Your task to perform on an android device: show emergency info Image 0: 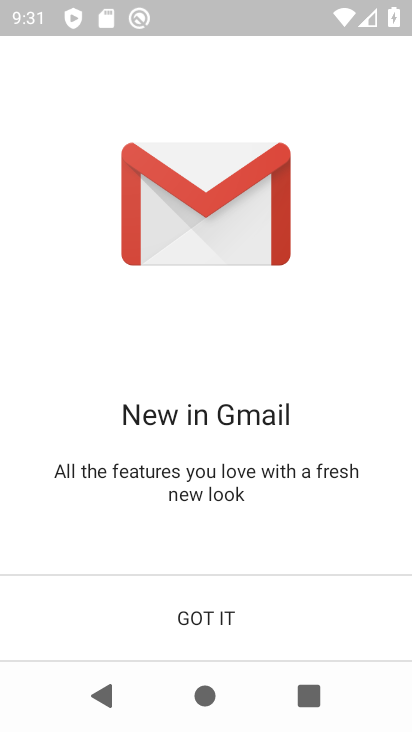
Step 0: press home button
Your task to perform on an android device: show emergency info Image 1: 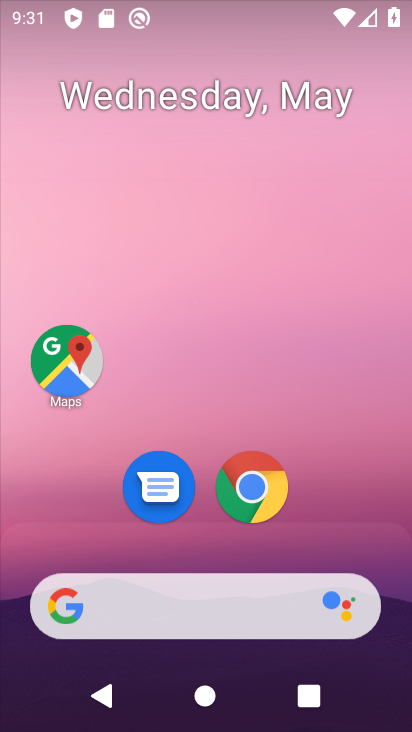
Step 1: drag from (201, 650) to (271, 2)
Your task to perform on an android device: show emergency info Image 2: 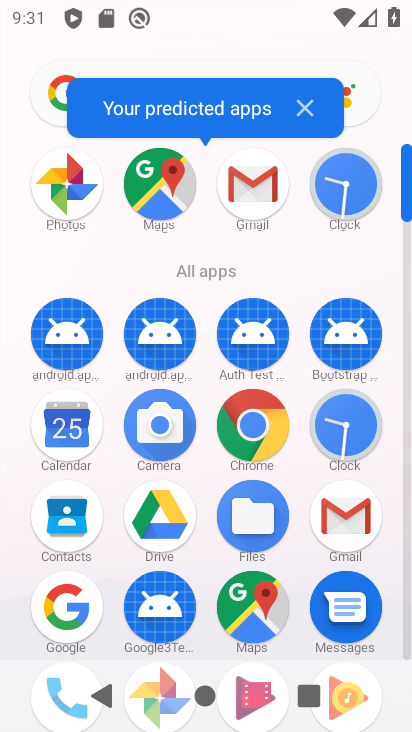
Step 2: drag from (197, 467) to (212, 206)
Your task to perform on an android device: show emergency info Image 3: 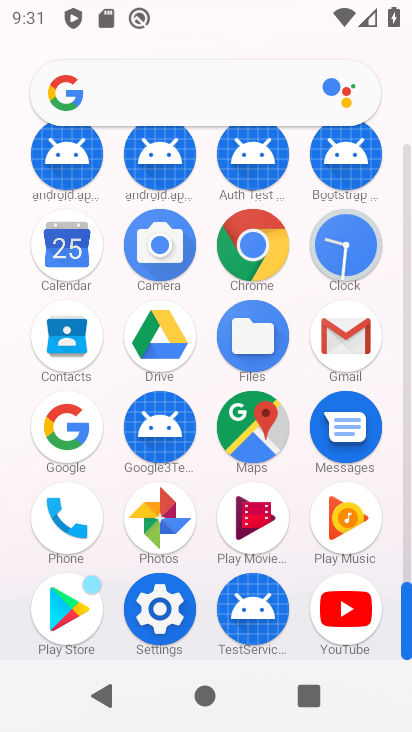
Step 3: click (168, 595)
Your task to perform on an android device: show emergency info Image 4: 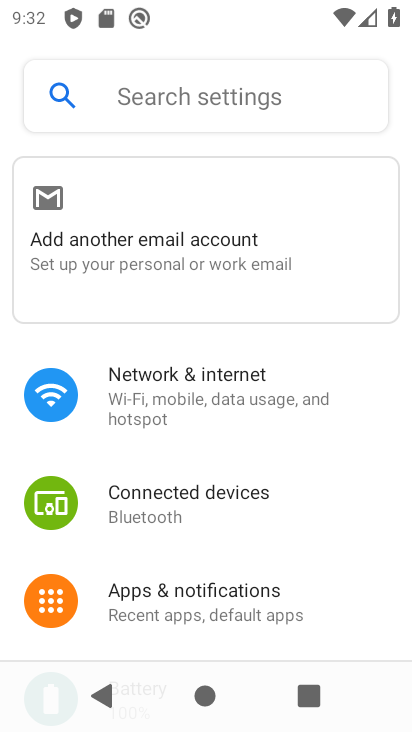
Step 4: click (153, 74)
Your task to perform on an android device: show emergency info Image 5: 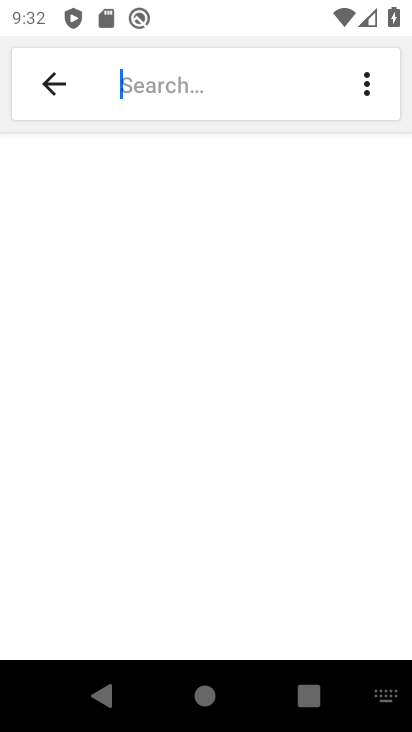
Step 5: click (391, 703)
Your task to perform on an android device: show emergency info Image 6: 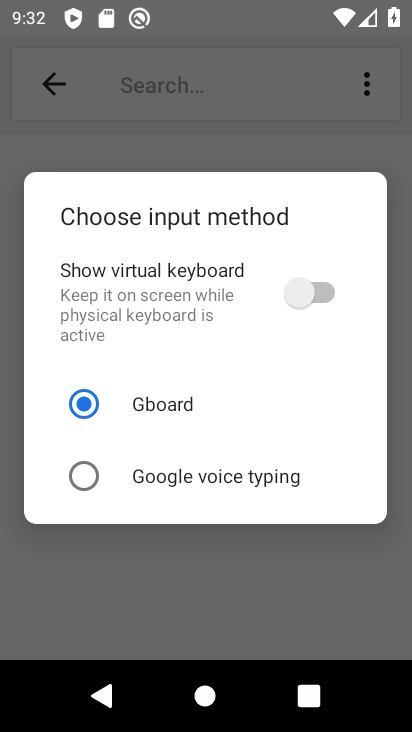
Step 6: click (302, 302)
Your task to perform on an android device: show emergency info Image 7: 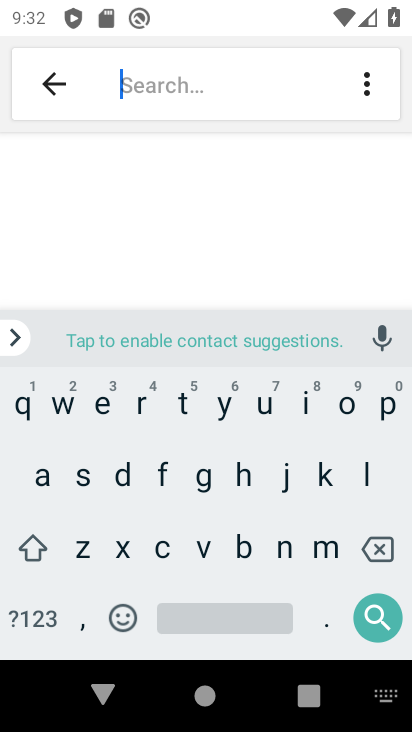
Step 7: click (97, 402)
Your task to perform on an android device: show emergency info Image 8: 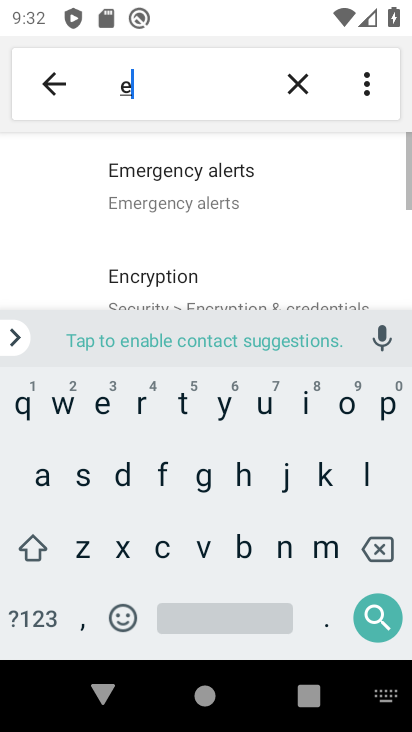
Step 8: click (320, 547)
Your task to perform on an android device: show emergency info Image 9: 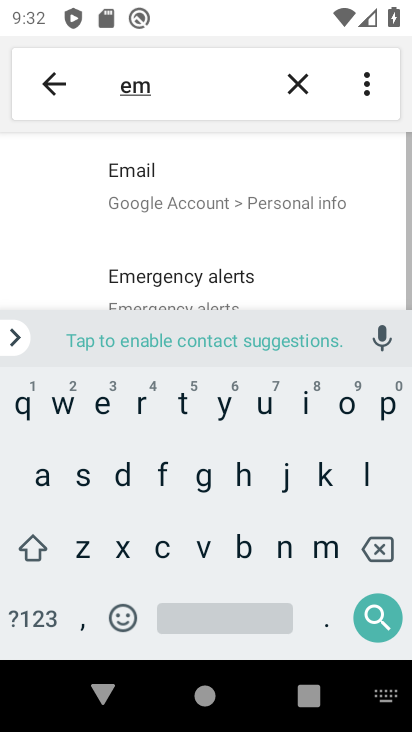
Step 9: click (108, 404)
Your task to perform on an android device: show emergency info Image 10: 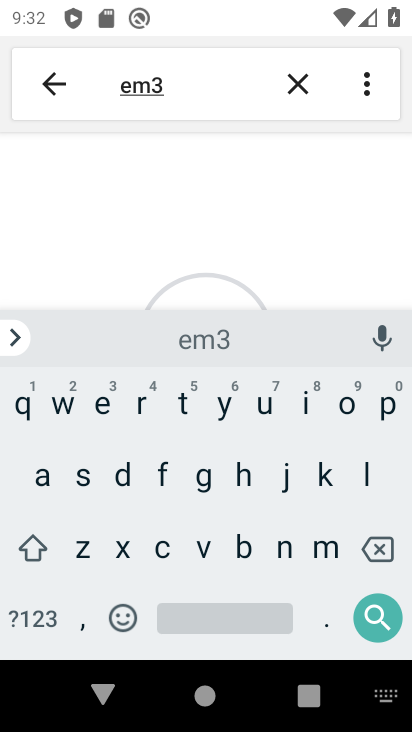
Step 10: click (389, 554)
Your task to perform on an android device: show emergency info Image 11: 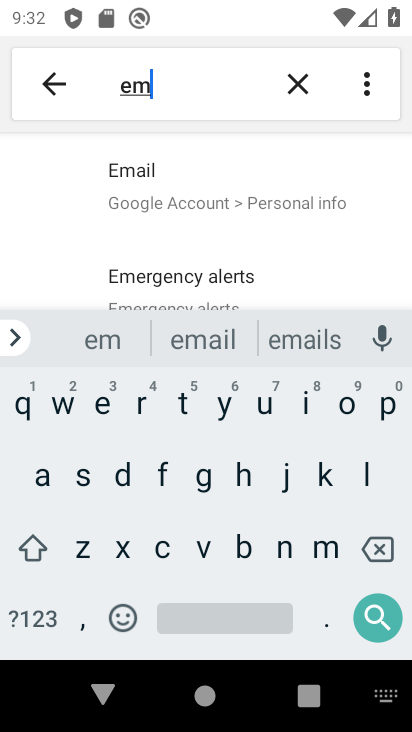
Step 11: click (95, 412)
Your task to perform on an android device: show emergency info Image 12: 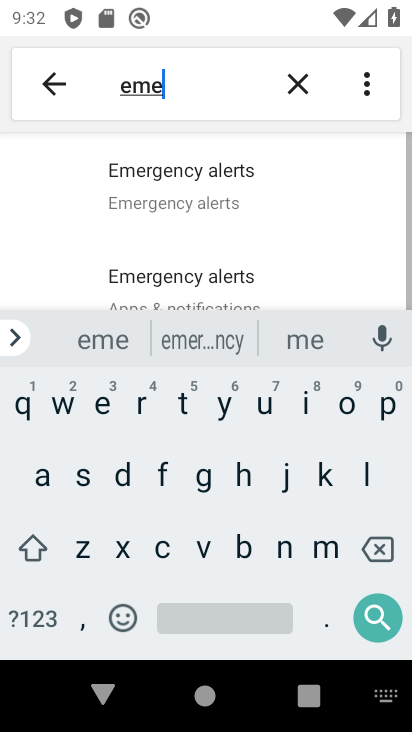
Step 12: click (188, 347)
Your task to perform on an android device: show emergency info Image 13: 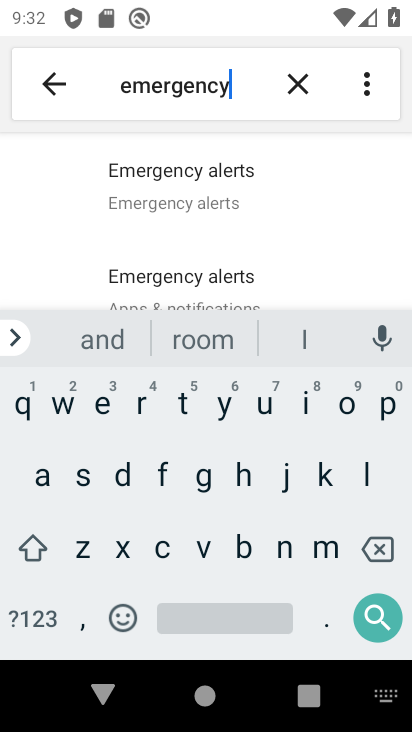
Step 13: click (301, 408)
Your task to perform on an android device: show emergency info Image 14: 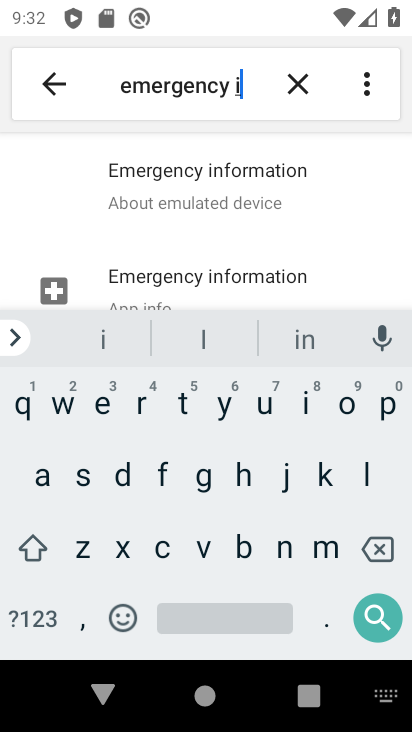
Step 14: click (248, 187)
Your task to perform on an android device: show emergency info Image 15: 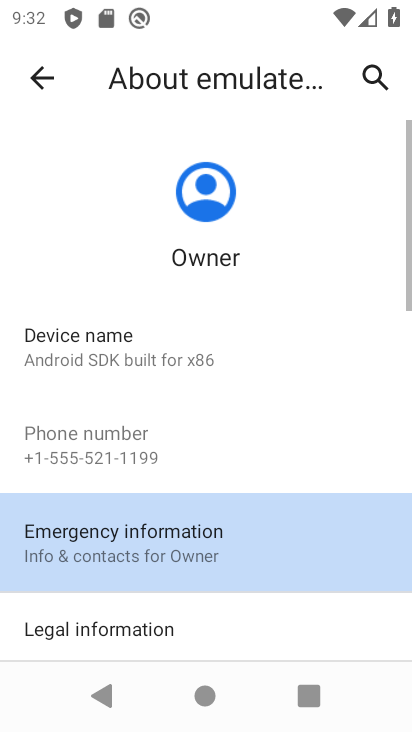
Step 15: click (132, 522)
Your task to perform on an android device: show emergency info Image 16: 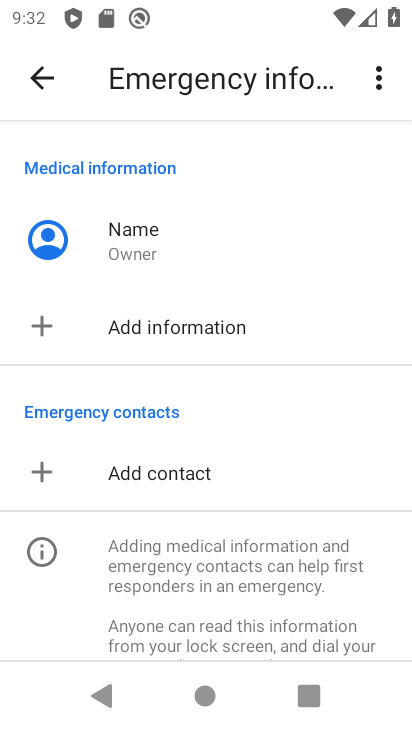
Step 16: task complete